Your task to perform on an android device: change the clock display to show seconds Image 0: 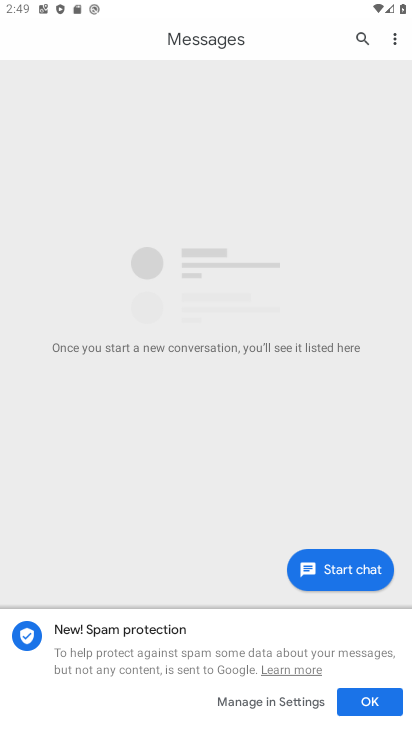
Step 0: press home button
Your task to perform on an android device: change the clock display to show seconds Image 1: 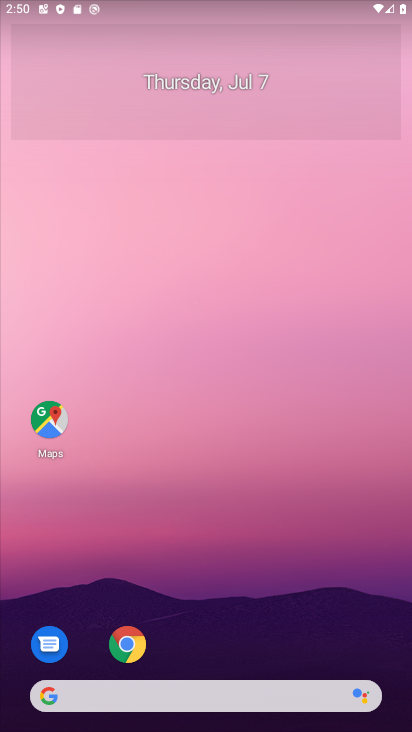
Step 1: drag from (222, 656) to (255, 110)
Your task to perform on an android device: change the clock display to show seconds Image 2: 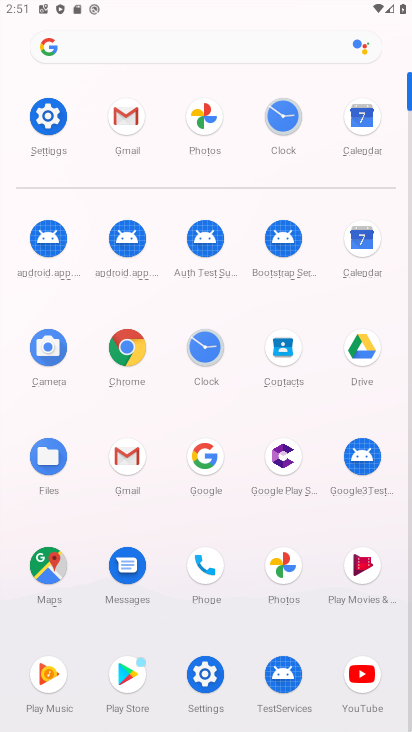
Step 2: click (276, 119)
Your task to perform on an android device: change the clock display to show seconds Image 3: 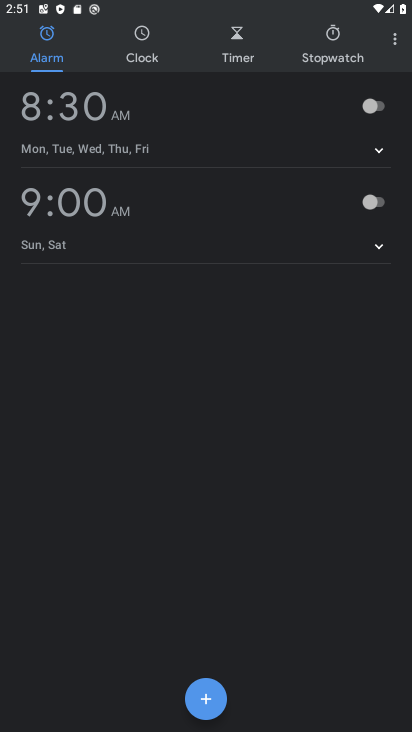
Step 3: click (393, 42)
Your task to perform on an android device: change the clock display to show seconds Image 4: 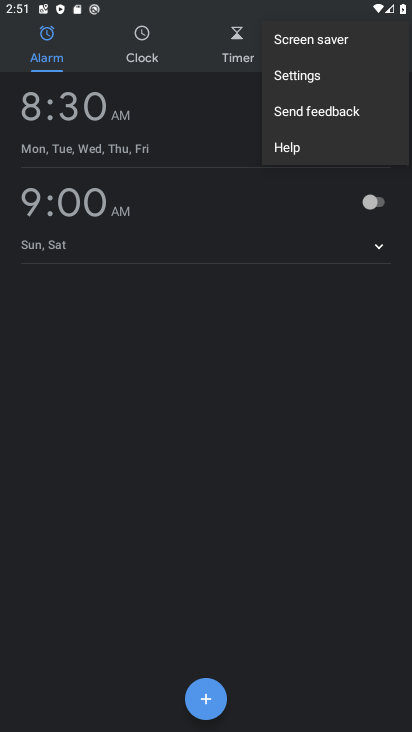
Step 4: click (304, 74)
Your task to perform on an android device: change the clock display to show seconds Image 5: 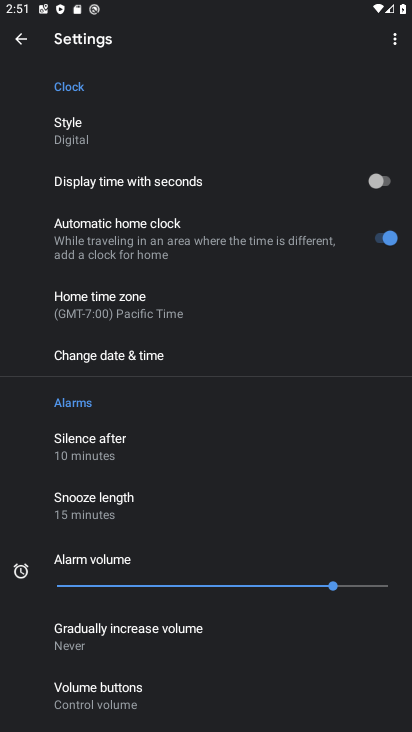
Step 5: click (370, 180)
Your task to perform on an android device: change the clock display to show seconds Image 6: 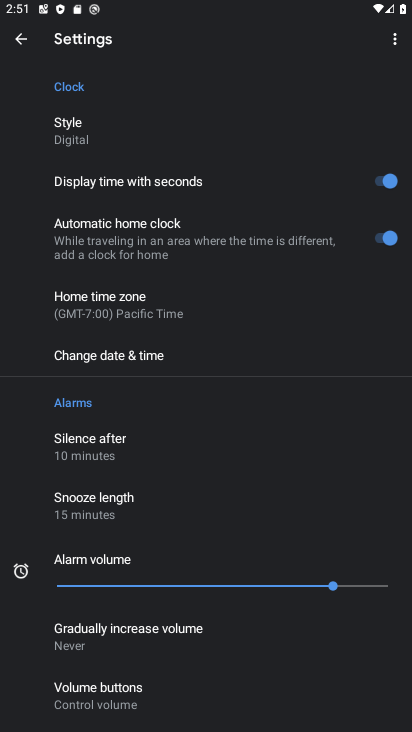
Step 6: task complete